Your task to perform on an android device: toggle data saver in the chrome app Image 0: 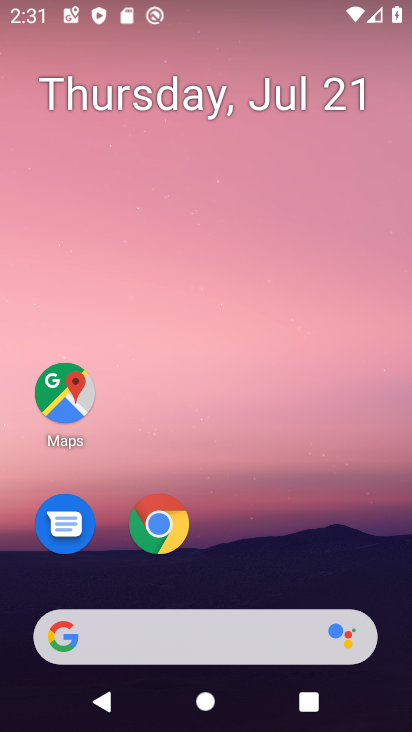
Step 0: click (177, 529)
Your task to perform on an android device: toggle data saver in the chrome app Image 1: 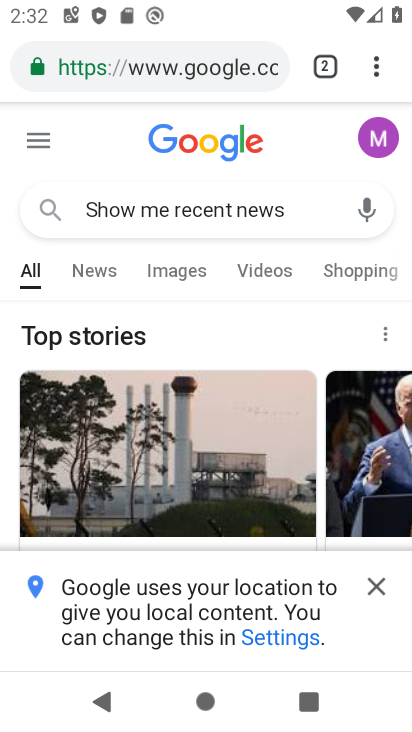
Step 1: click (374, 66)
Your task to perform on an android device: toggle data saver in the chrome app Image 2: 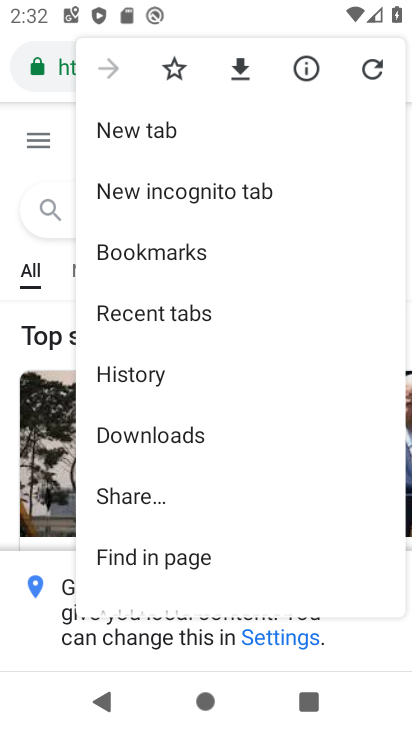
Step 2: drag from (227, 427) to (271, 51)
Your task to perform on an android device: toggle data saver in the chrome app Image 3: 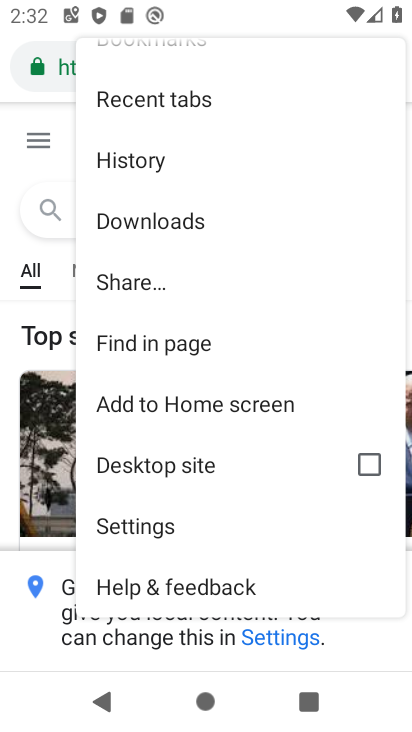
Step 3: click (146, 516)
Your task to perform on an android device: toggle data saver in the chrome app Image 4: 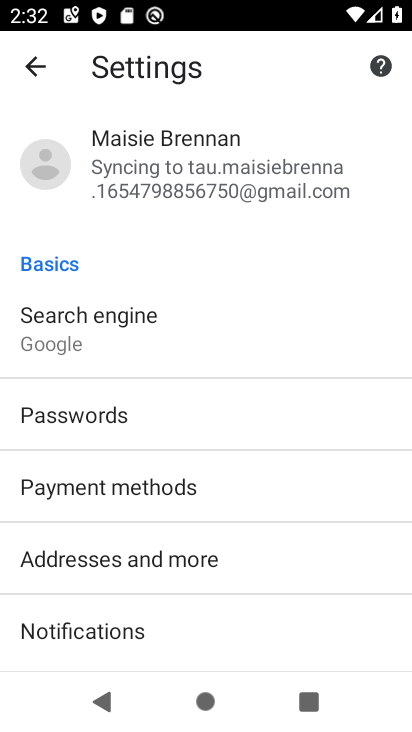
Step 4: drag from (252, 602) to (261, 41)
Your task to perform on an android device: toggle data saver in the chrome app Image 5: 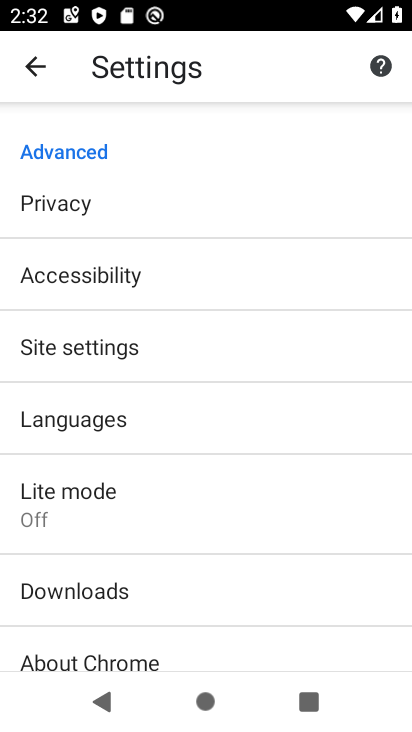
Step 5: click (94, 499)
Your task to perform on an android device: toggle data saver in the chrome app Image 6: 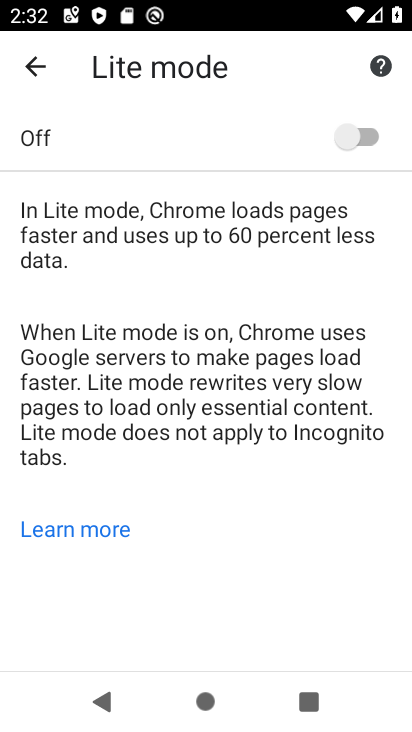
Step 6: click (362, 129)
Your task to perform on an android device: toggle data saver in the chrome app Image 7: 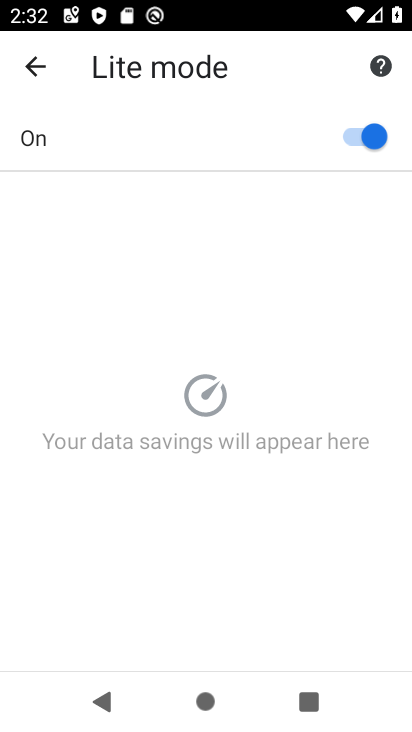
Step 7: task complete